Your task to perform on an android device: Search for seafood restaurants on Google Maps Image 0: 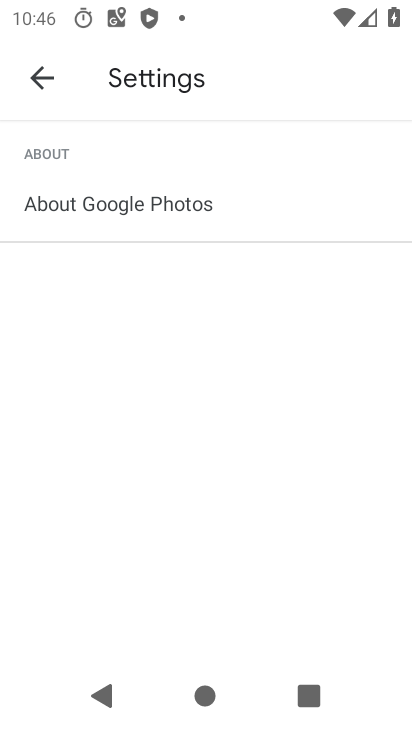
Step 0: press home button
Your task to perform on an android device: Search for seafood restaurants on Google Maps Image 1: 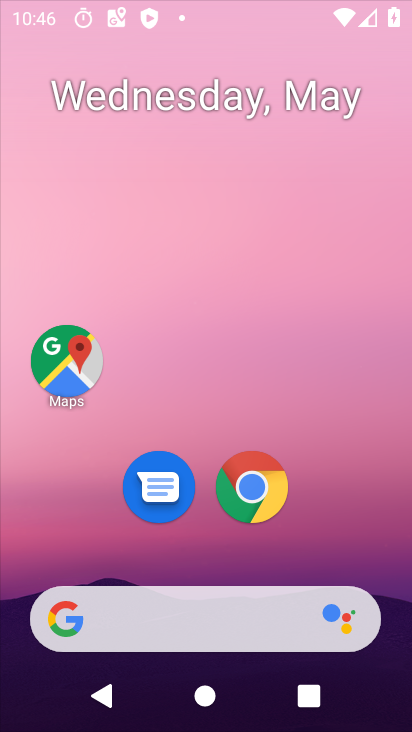
Step 1: drag from (229, 682) to (248, 90)
Your task to perform on an android device: Search for seafood restaurants on Google Maps Image 2: 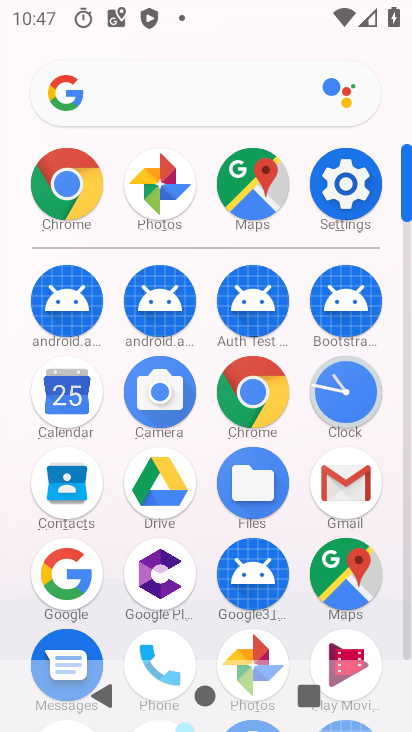
Step 2: click (352, 552)
Your task to perform on an android device: Search for seafood restaurants on Google Maps Image 3: 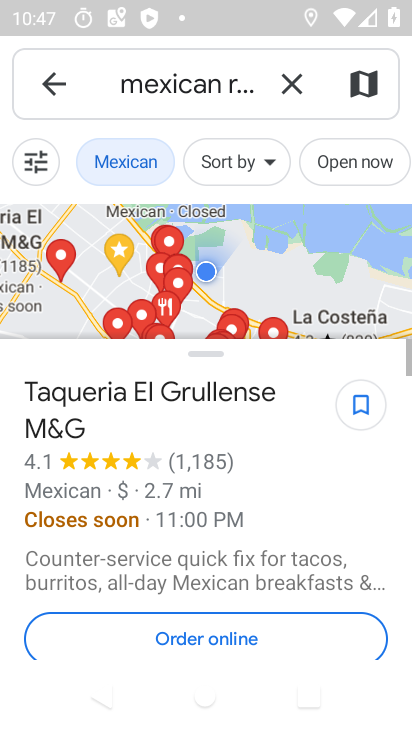
Step 3: press back button
Your task to perform on an android device: Search for seafood restaurants on Google Maps Image 4: 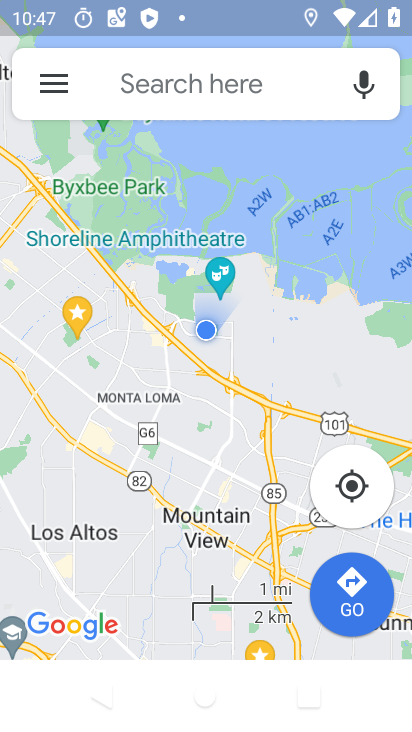
Step 4: click (106, 77)
Your task to perform on an android device: Search for seafood restaurants on Google Maps Image 5: 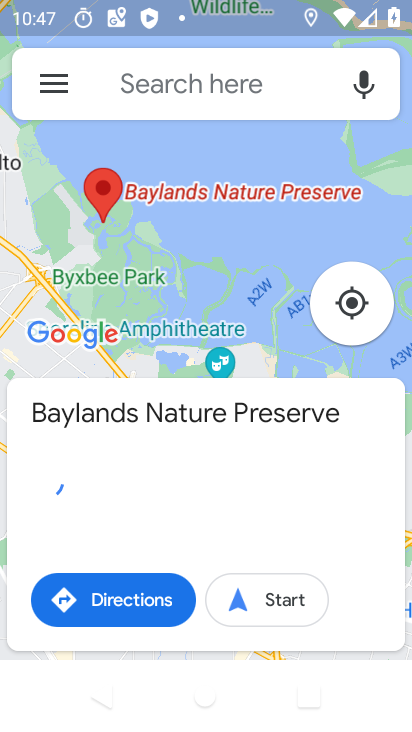
Step 5: click (200, 78)
Your task to perform on an android device: Search for seafood restaurants on Google Maps Image 6: 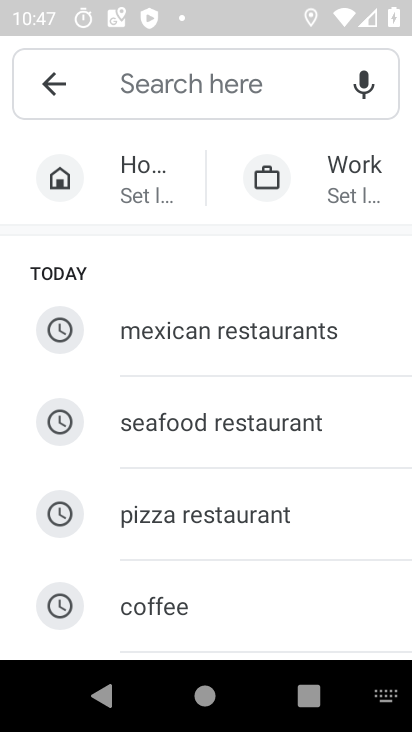
Step 6: click (226, 403)
Your task to perform on an android device: Search for seafood restaurants on Google Maps Image 7: 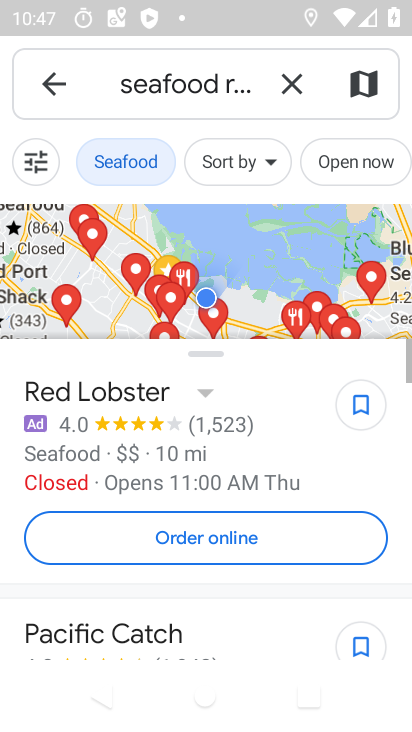
Step 7: task complete